Your task to perform on an android device: delete a single message in the gmail app Image 0: 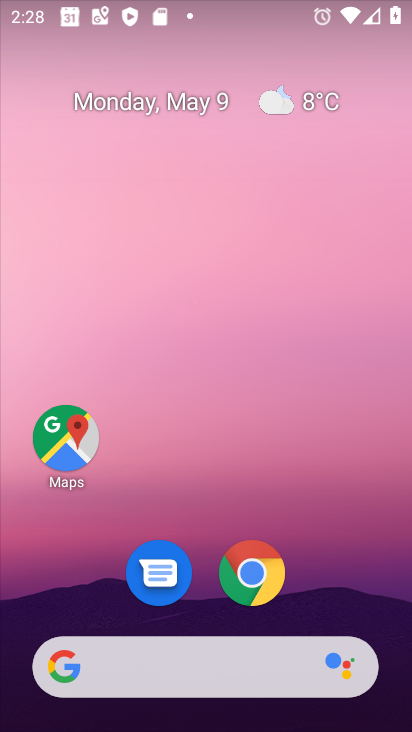
Step 0: drag from (160, 643) to (266, 185)
Your task to perform on an android device: delete a single message in the gmail app Image 1: 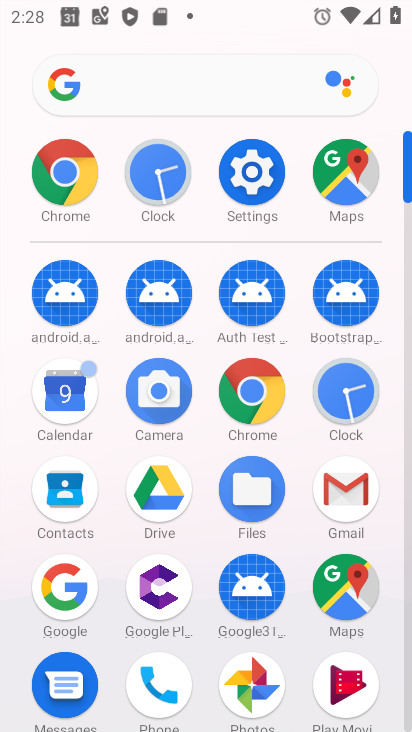
Step 1: click (338, 491)
Your task to perform on an android device: delete a single message in the gmail app Image 2: 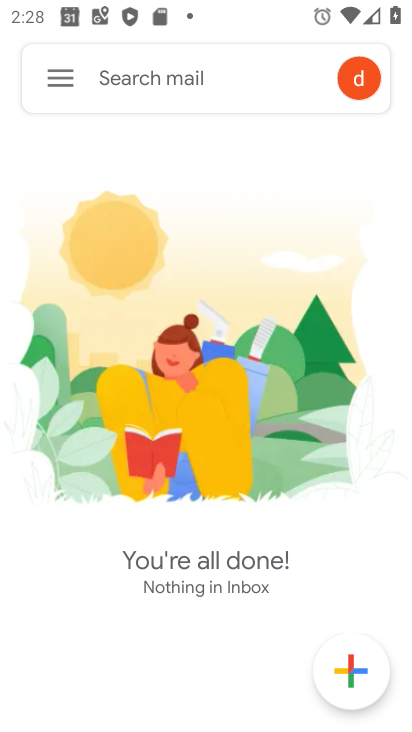
Step 2: task complete